Your task to perform on an android device: Go to Yahoo.com Image 0: 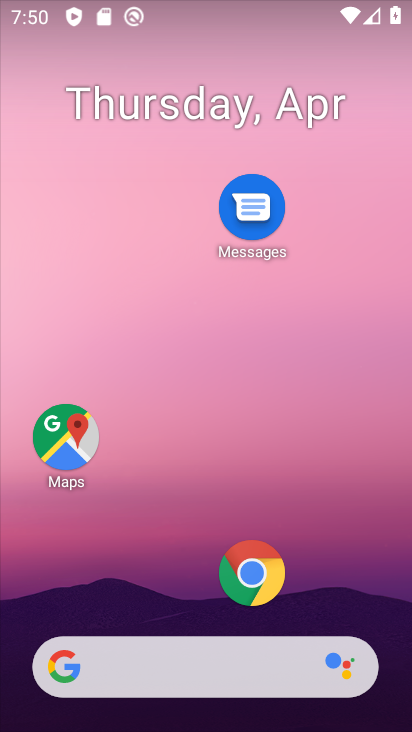
Step 0: press home button
Your task to perform on an android device: Go to Yahoo.com Image 1: 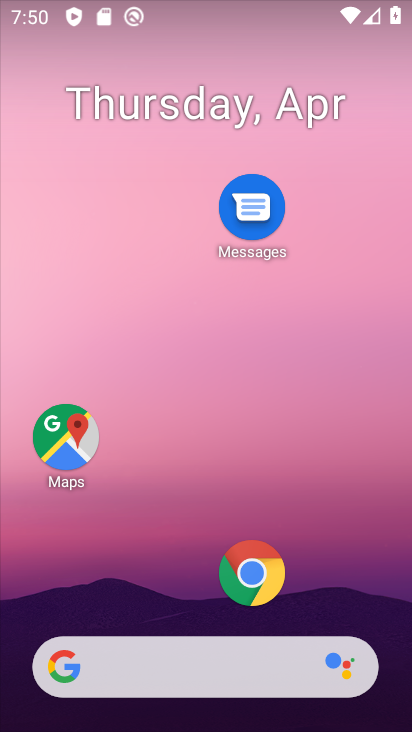
Step 1: click (249, 564)
Your task to perform on an android device: Go to Yahoo.com Image 2: 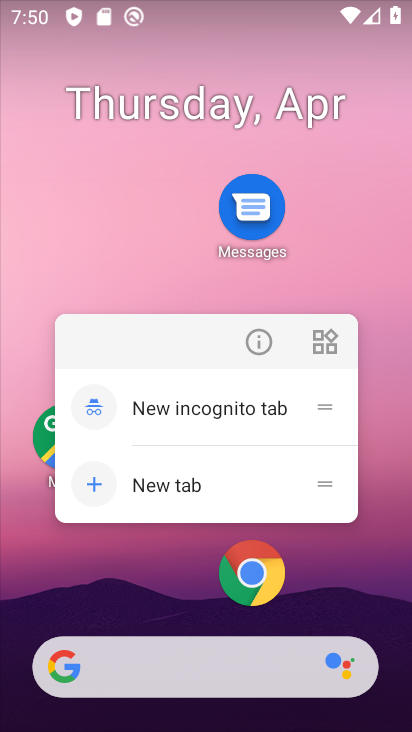
Step 2: click (249, 564)
Your task to perform on an android device: Go to Yahoo.com Image 3: 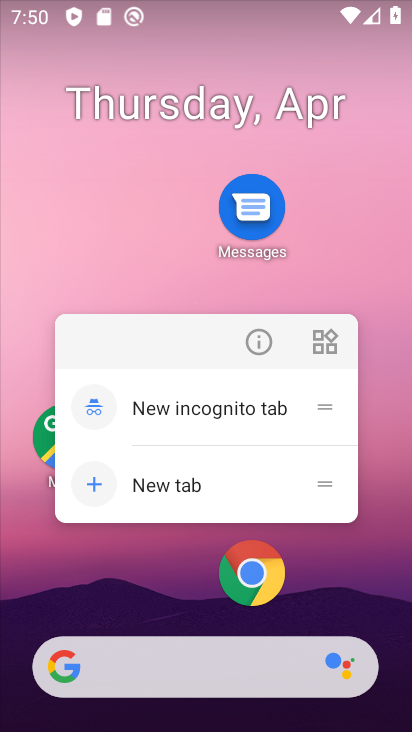
Step 3: click (249, 565)
Your task to perform on an android device: Go to Yahoo.com Image 4: 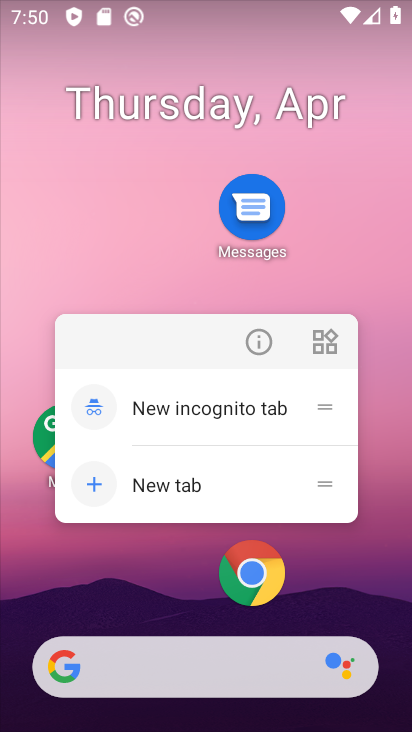
Step 4: click (311, 584)
Your task to perform on an android device: Go to Yahoo.com Image 5: 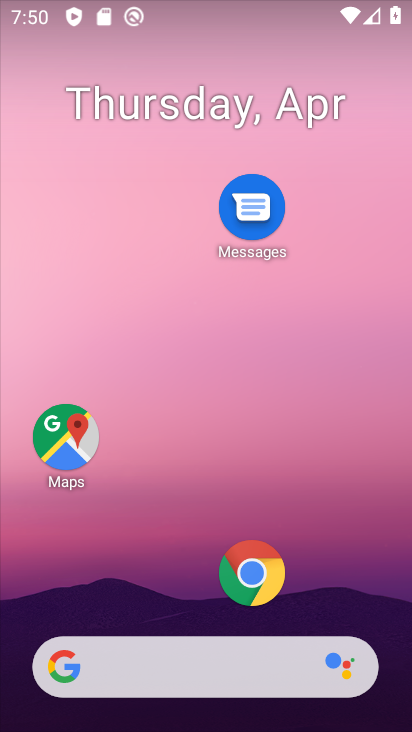
Step 5: click (251, 567)
Your task to perform on an android device: Go to Yahoo.com Image 6: 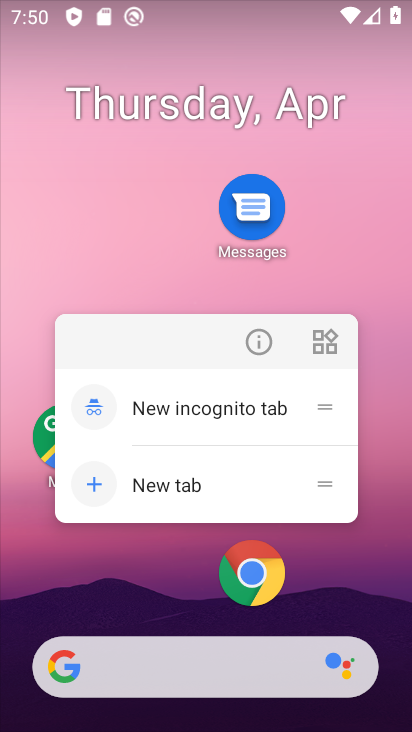
Step 6: click (311, 599)
Your task to perform on an android device: Go to Yahoo.com Image 7: 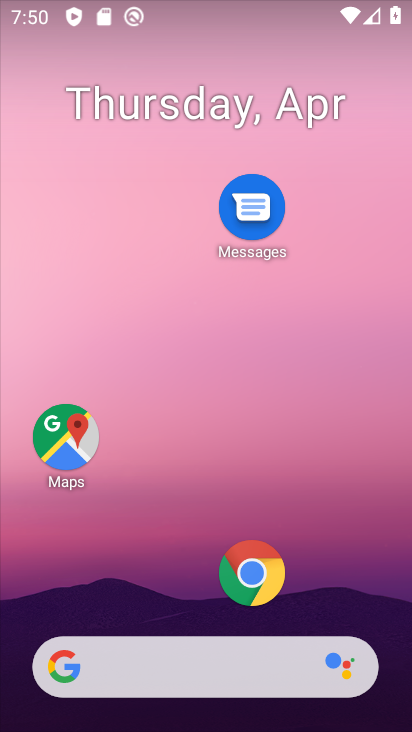
Step 7: click (249, 567)
Your task to perform on an android device: Go to Yahoo.com Image 8: 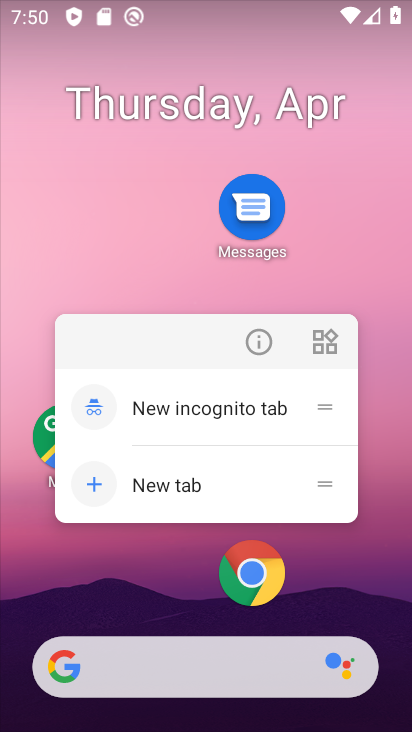
Step 8: click (311, 605)
Your task to perform on an android device: Go to Yahoo.com Image 9: 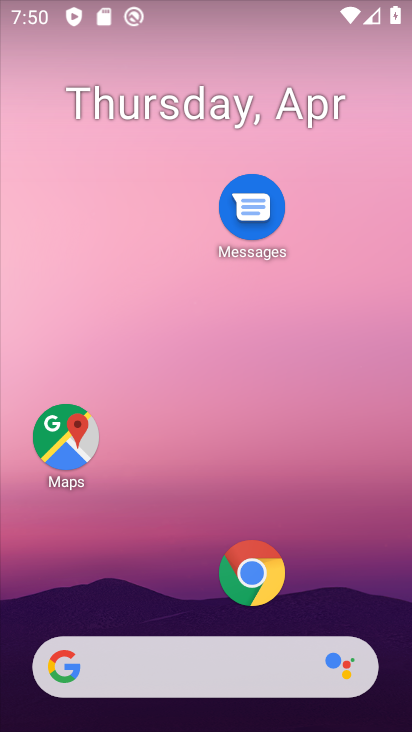
Step 9: drag from (195, 609) to (196, 128)
Your task to perform on an android device: Go to Yahoo.com Image 10: 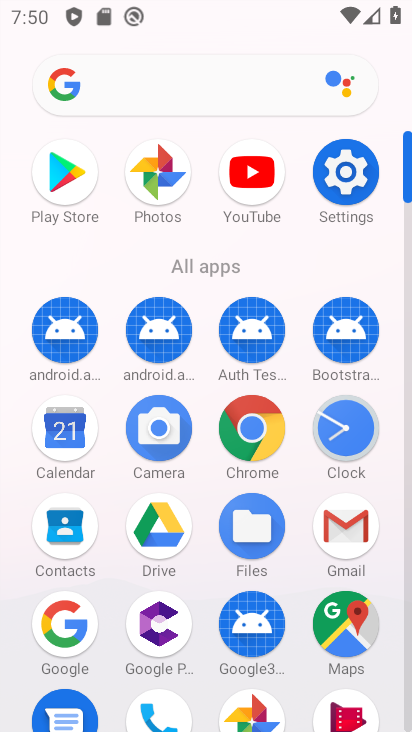
Step 10: drag from (202, 683) to (208, 216)
Your task to perform on an android device: Go to Yahoo.com Image 11: 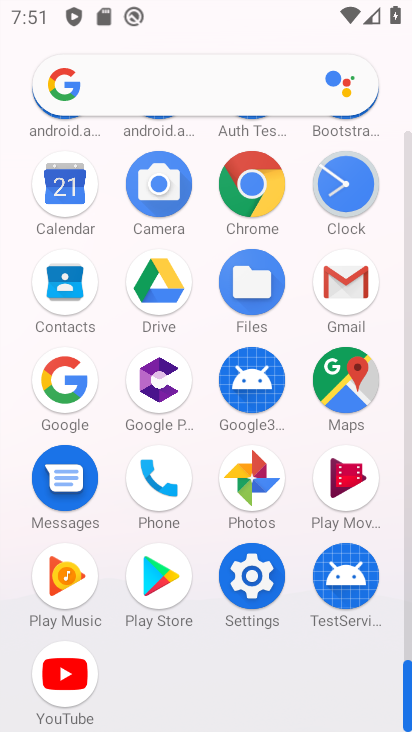
Step 11: click (248, 177)
Your task to perform on an android device: Go to Yahoo.com Image 12: 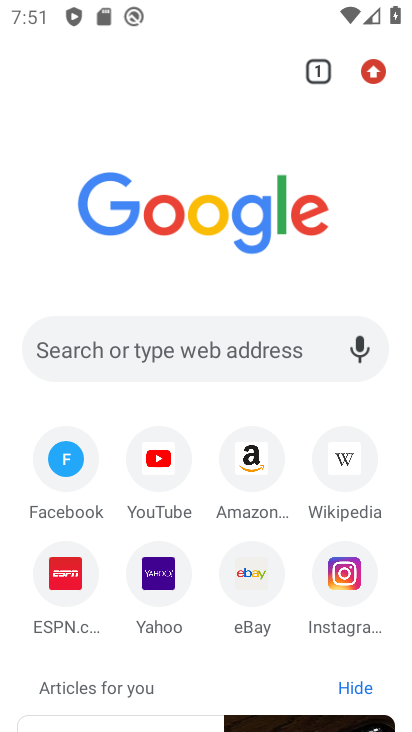
Step 12: click (159, 565)
Your task to perform on an android device: Go to Yahoo.com Image 13: 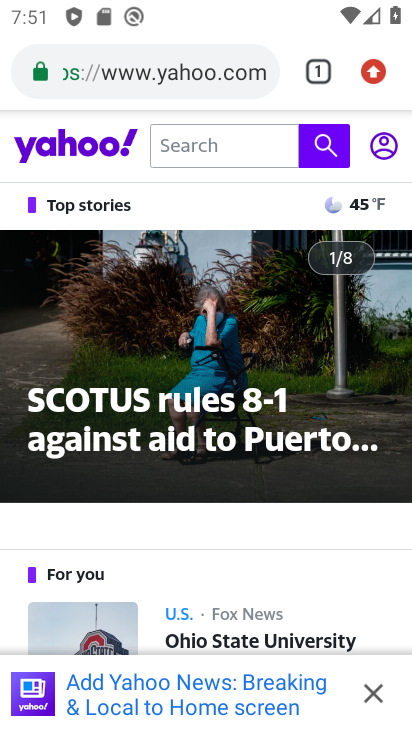
Step 13: click (370, 695)
Your task to perform on an android device: Go to Yahoo.com Image 14: 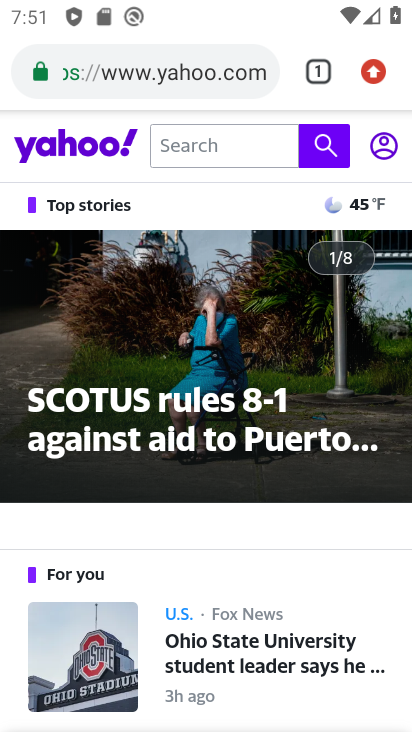
Step 14: task complete